Your task to perform on an android device: set the stopwatch Image 0: 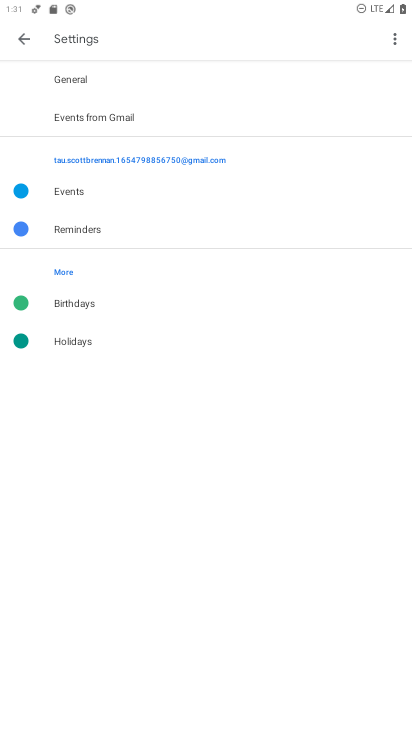
Step 0: press home button
Your task to perform on an android device: set the stopwatch Image 1: 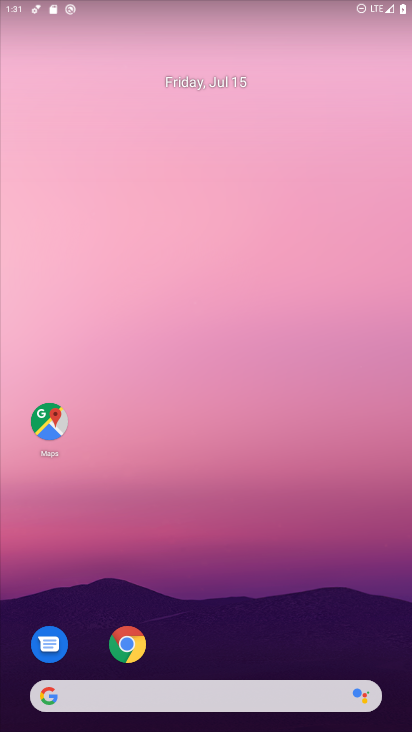
Step 1: click (142, 646)
Your task to perform on an android device: set the stopwatch Image 2: 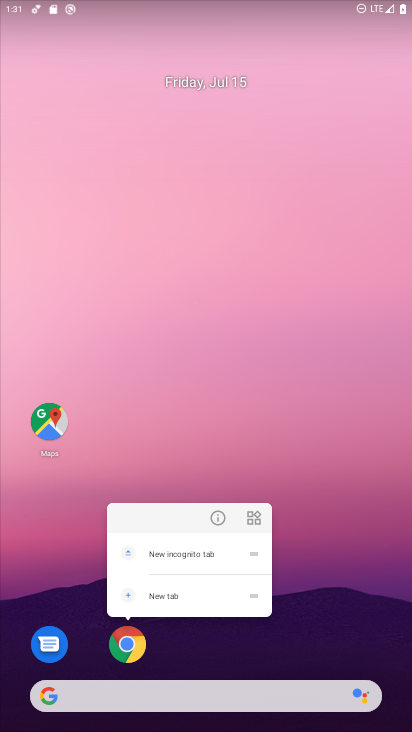
Step 2: click (154, 613)
Your task to perform on an android device: set the stopwatch Image 3: 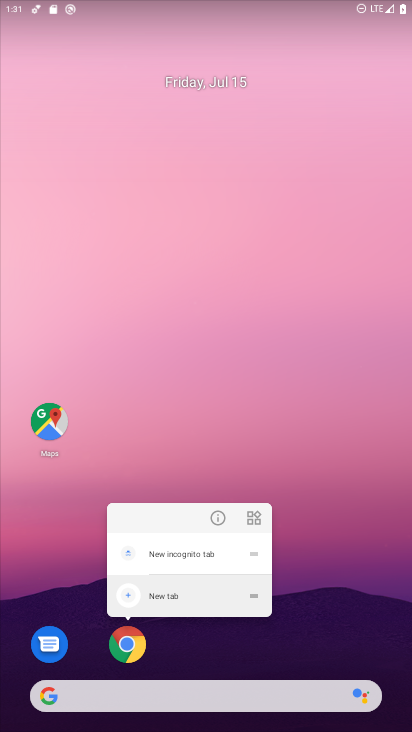
Step 3: click (120, 648)
Your task to perform on an android device: set the stopwatch Image 4: 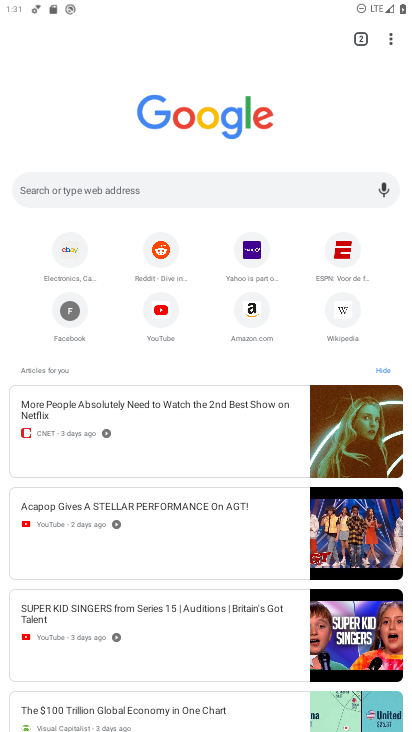
Step 4: click (225, 314)
Your task to perform on an android device: set the stopwatch Image 5: 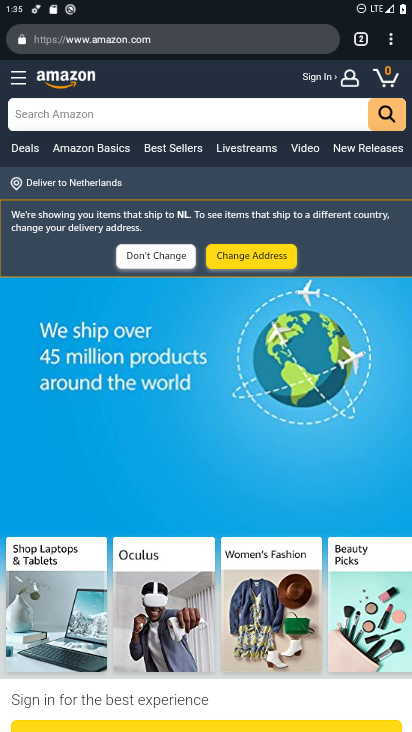
Step 5: task complete